Your task to perform on an android device: Go to location settings Image 0: 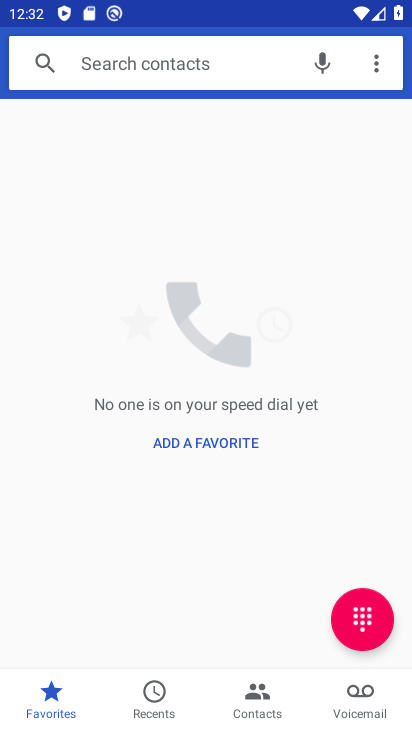
Step 0: press home button
Your task to perform on an android device: Go to location settings Image 1: 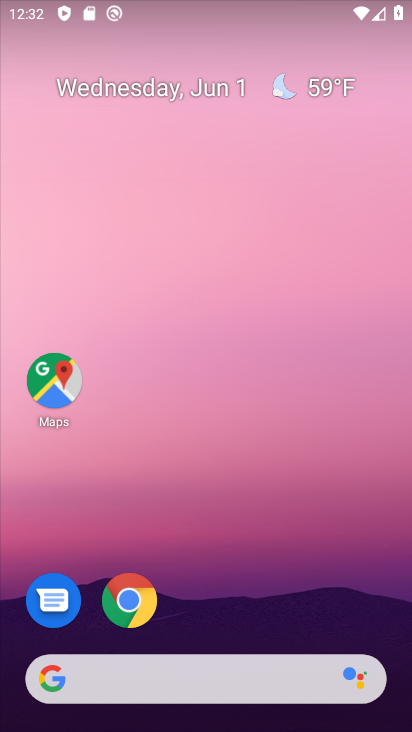
Step 1: drag from (218, 630) to (317, 30)
Your task to perform on an android device: Go to location settings Image 2: 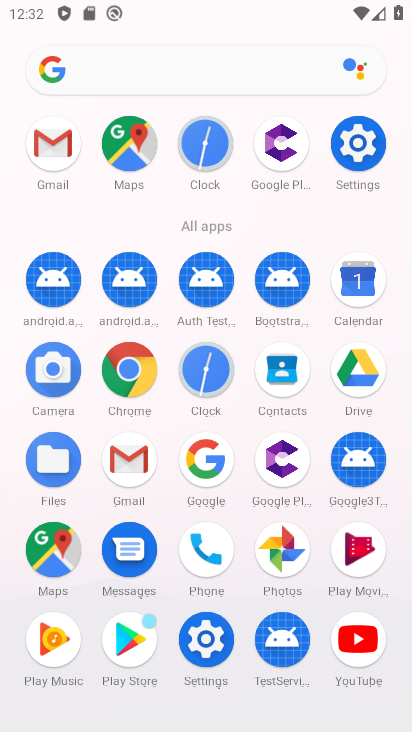
Step 2: click (361, 146)
Your task to perform on an android device: Go to location settings Image 3: 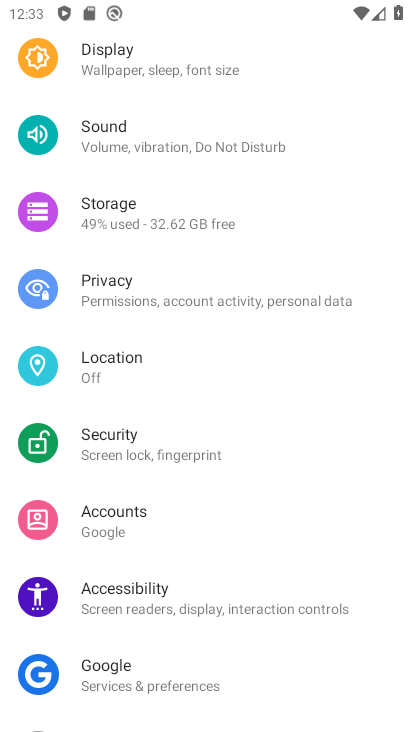
Step 3: click (174, 388)
Your task to perform on an android device: Go to location settings Image 4: 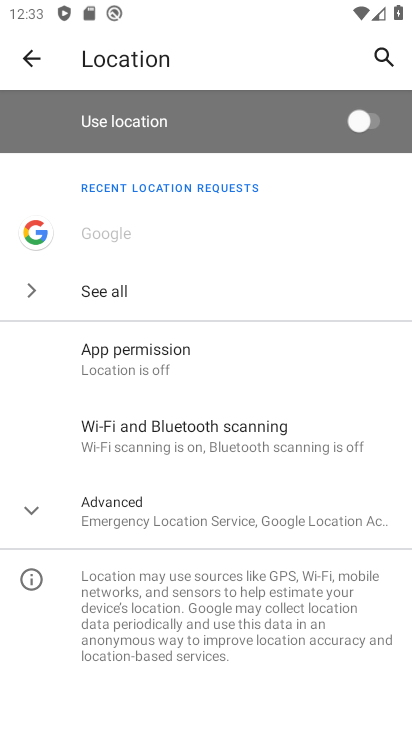
Step 4: task complete